Your task to perform on an android device: Go to accessibility settings Image 0: 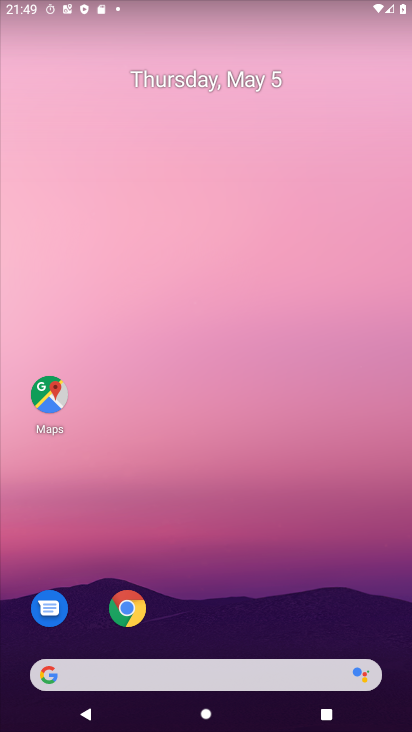
Step 0: drag from (315, 652) to (356, 5)
Your task to perform on an android device: Go to accessibility settings Image 1: 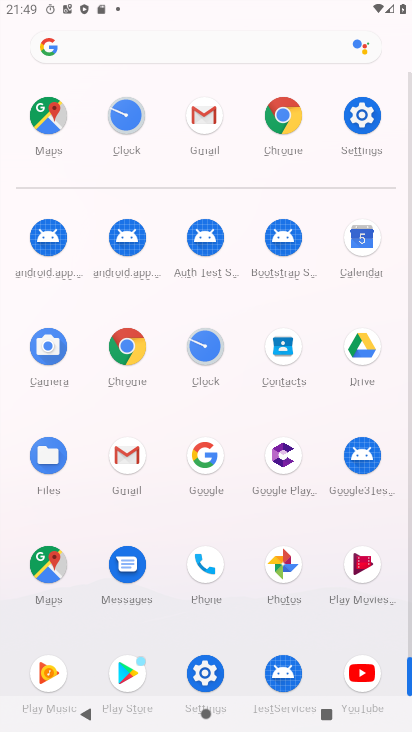
Step 1: click (369, 111)
Your task to perform on an android device: Go to accessibility settings Image 2: 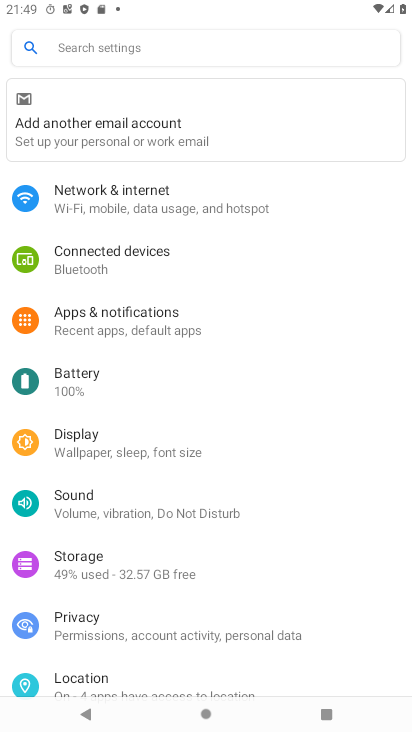
Step 2: drag from (200, 659) to (201, 195)
Your task to perform on an android device: Go to accessibility settings Image 3: 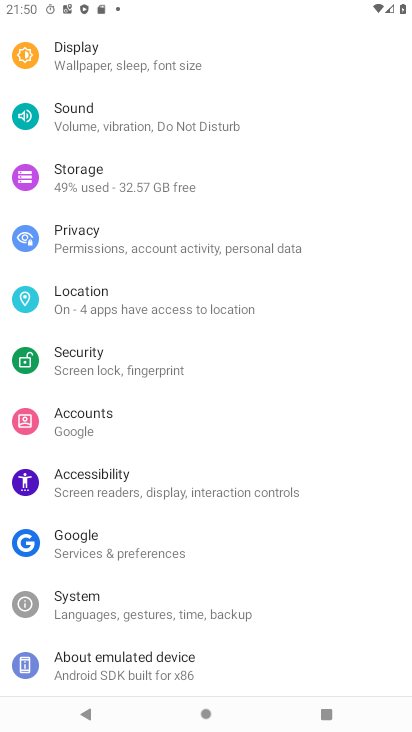
Step 3: click (127, 481)
Your task to perform on an android device: Go to accessibility settings Image 4: 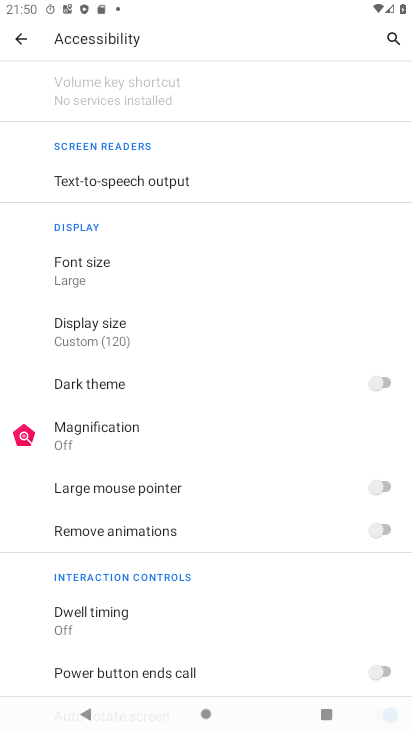
Step 4: task complete